Your task to perform on an android device: empty trash in google photos Image 0: 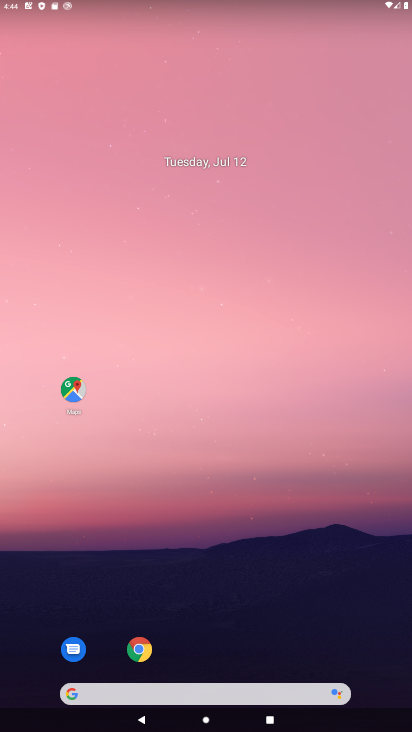
Step 0: drag from (204, 692) to (260, 123)
Your task to perform on an android device: empty trash in google photos Image 1: 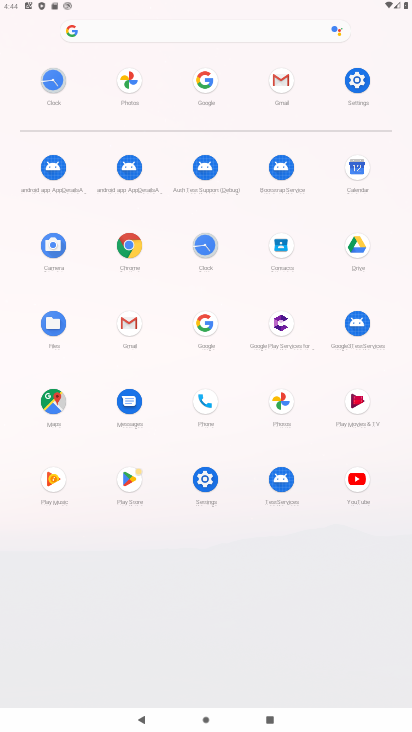
Step 1: click (130, 81)
Your task to perform on an android device: empty trash in google photos Image 2: 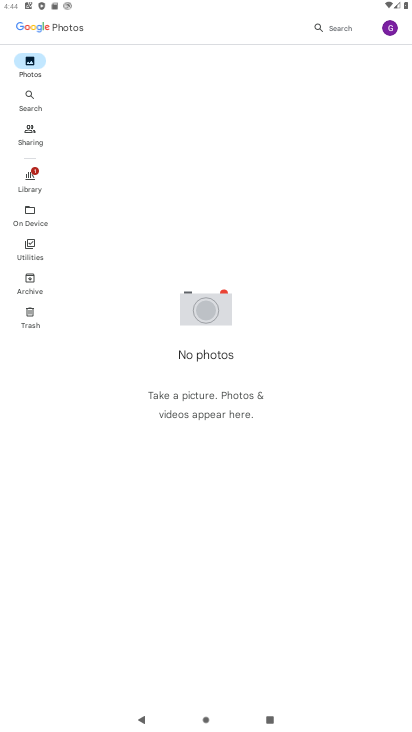
Step 2: click (29, 313)
Your task to perform on an android device: empty trash in google photos Image 3: 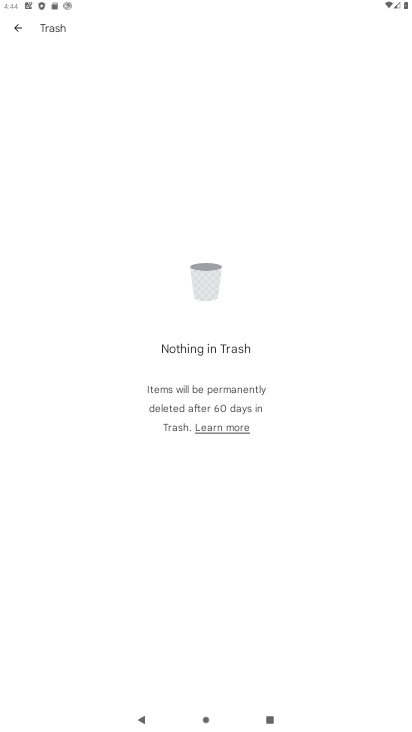
Step 3: task complete